Your task to perform on an android device: turn off location Image 0: 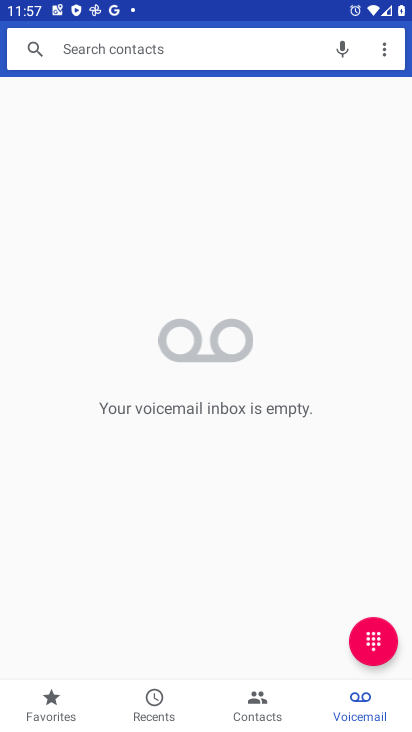
Step 0: press home button
Your task to perform on an android device: turn off location Image 1: 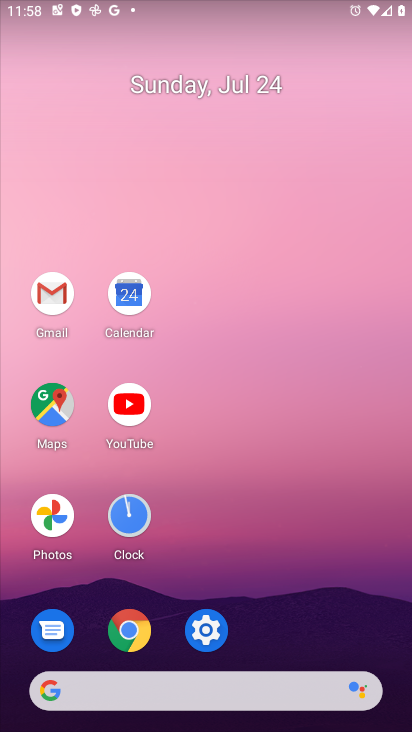
Step 1: click (196, 626)
Your task to perform on an android device: turn off location Image 2: 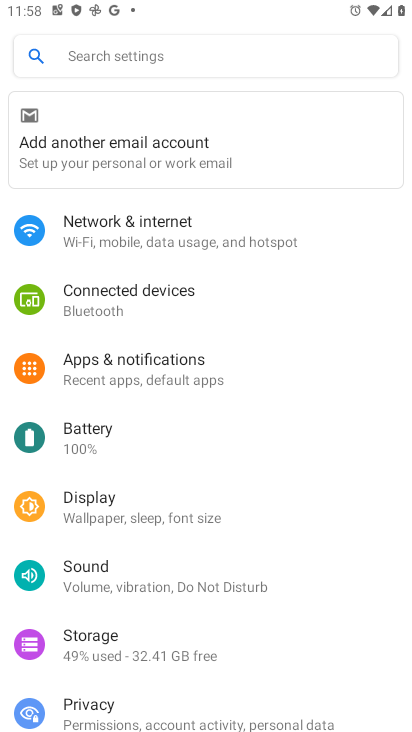
Step 2: drag from (269, 630) to (288, 175)
Your task to perform on an android device: turn off location Image 3: 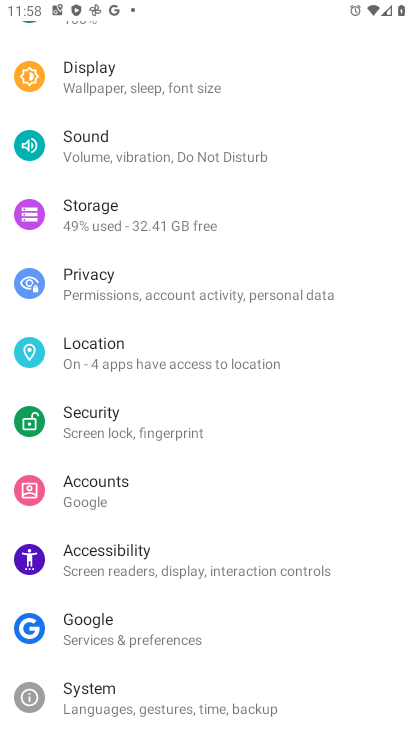
Step 3: click (81, 338)
Your task to perform on an android device: turn off location Image 4: 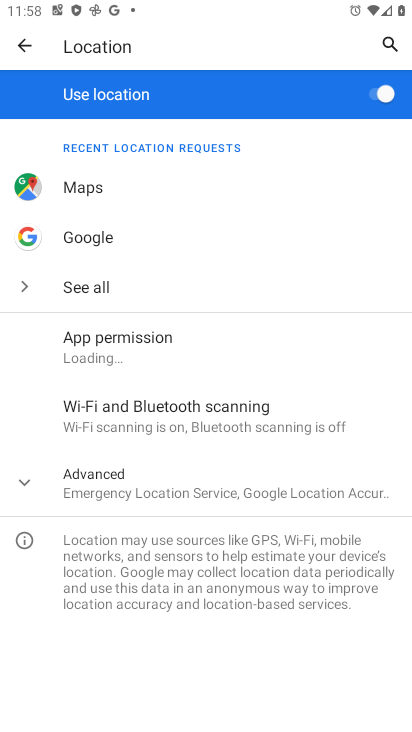
Step 4: click (389, 87)
Your task to perform on an android device: turn off location Image 5: 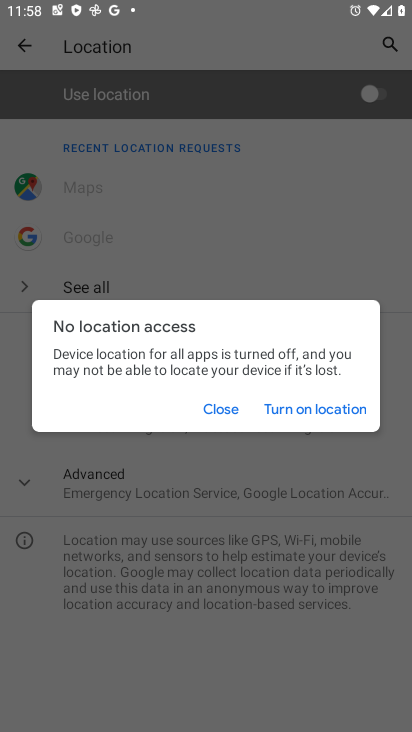
Step 5: click (221, 412)
Your task to perform on an android device: turn off location Image 6: 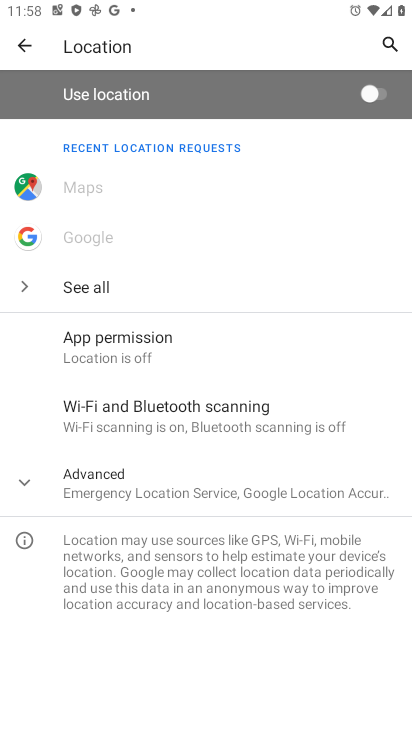
Step 6: task complete